Your task to perform on an android device: remove spam from my inbox in the gmail app Image 0: 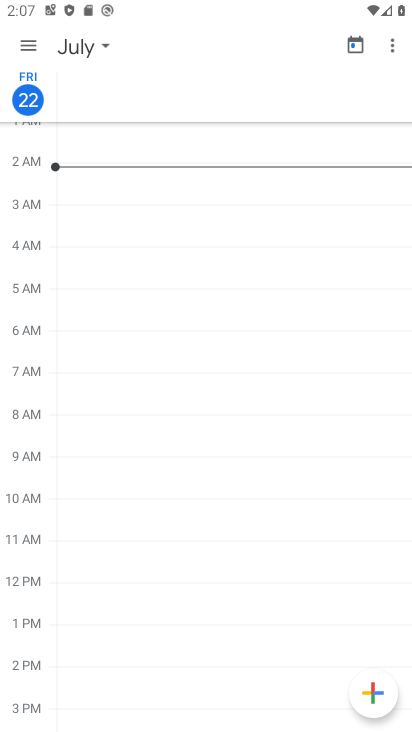
Step 0: press home button
Your task to perform on an android device: remove spam from my inbox in the gmail app Image 1: 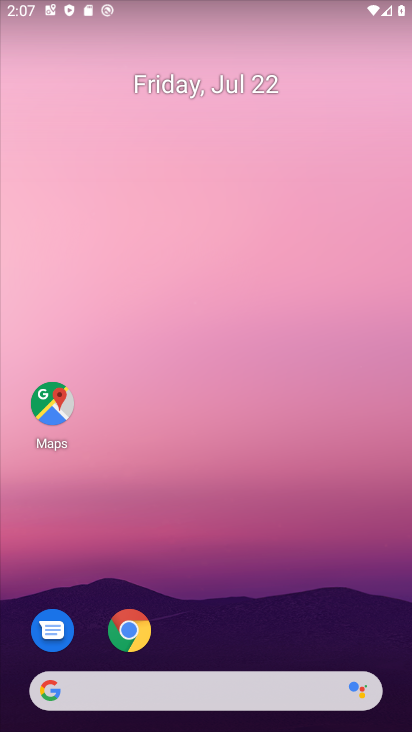
Step 1: drag from (206, 659) to (156, 9)
Your task to perform on an android device: remove spam from my inbox in the gmail app Image 2: 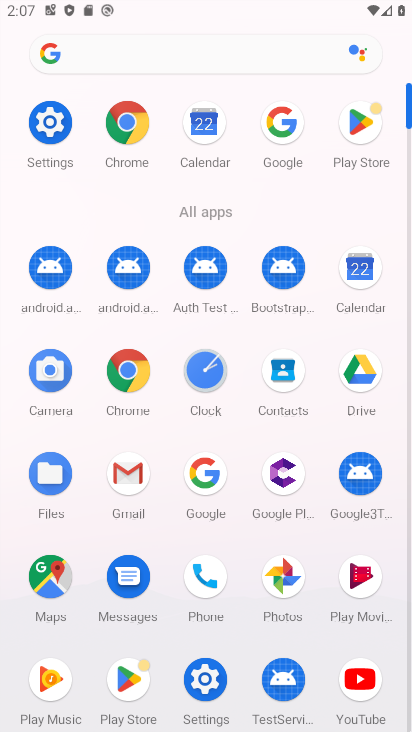
Step 2: click (128, 475)
Your task to perform on an android device: remove spam from my inbox in the gmail app Image 3: 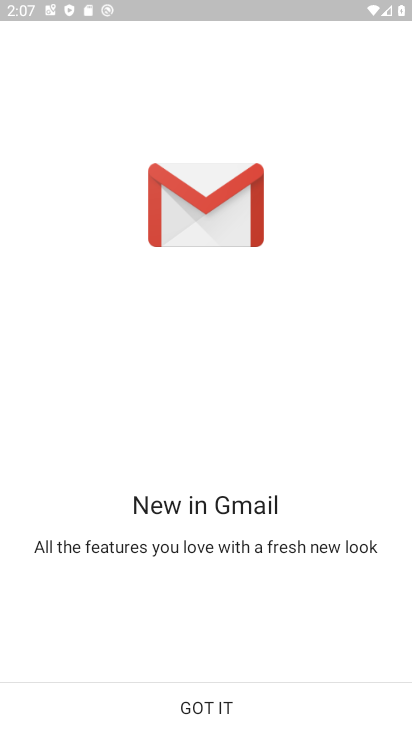
Step 3: click (217, 701)
Your task to perform on an android device: remove spam from my inbox in the gmail app Image 4: 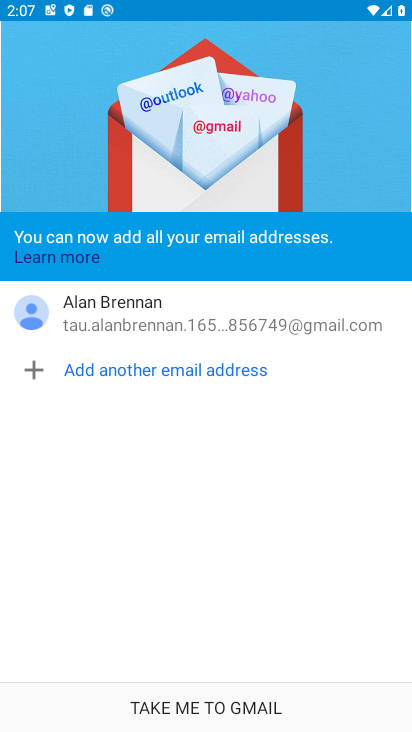
Step 4: click (232, 711)
Your task to perform on an android device: remove spam from my inbox in the gmail app Image 5: 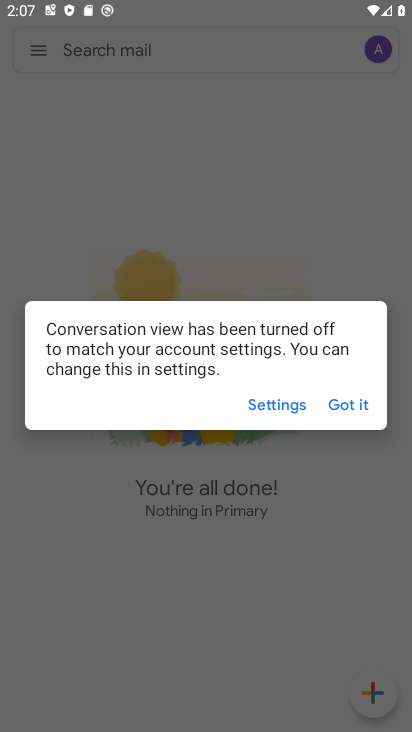
Step 5: click (349, 401)
Your task to perform on an android device: remove spam from my inbox in the gmail app Image 6: 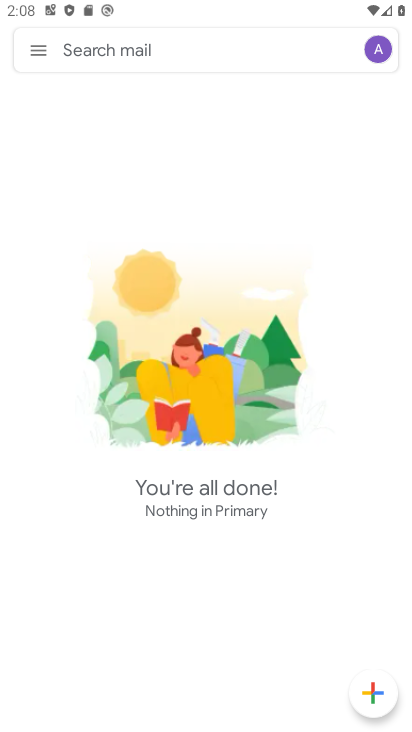
Step 6: click (36, 47)
Your task to perform on an android device: remove spam from my inbox in the gmail app Image 7: 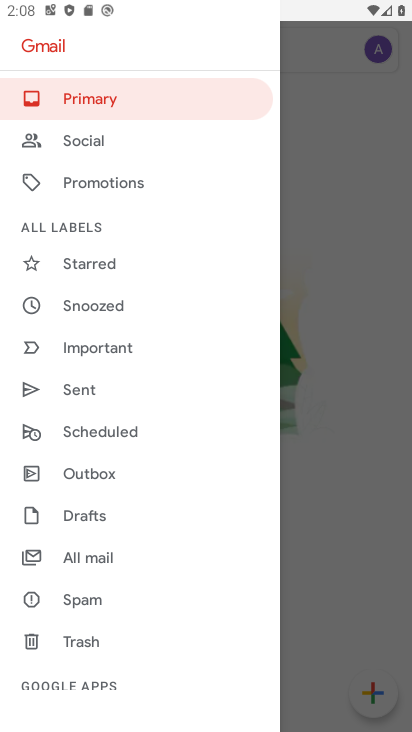
Step 7: click (98, 598)
Your task to perform on an android device: remove spam from my inbox in the gmail app Image 8: 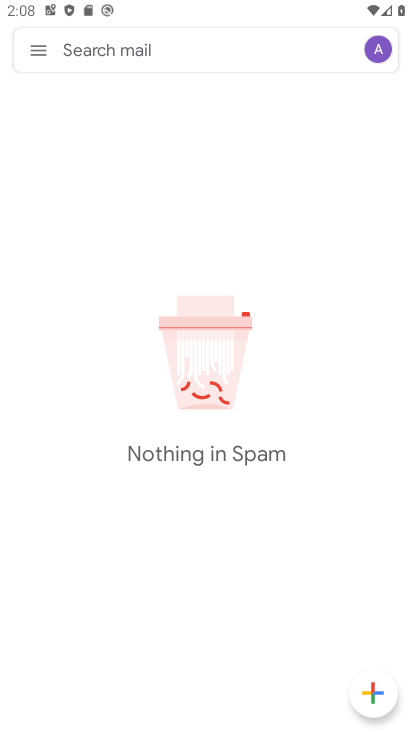
Step 8: task complete